Your task to perform on an android device: Show me recent news Image 0: 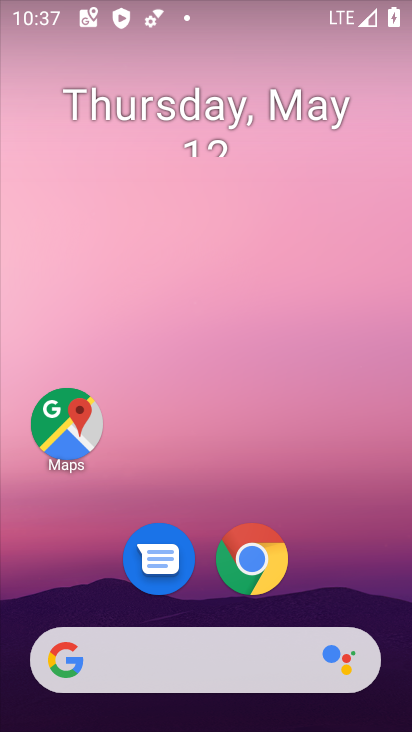
Step 0: drag from (215, 600) to (220, 250)
Your task to perform on an android device: Show me recent news Image 1: 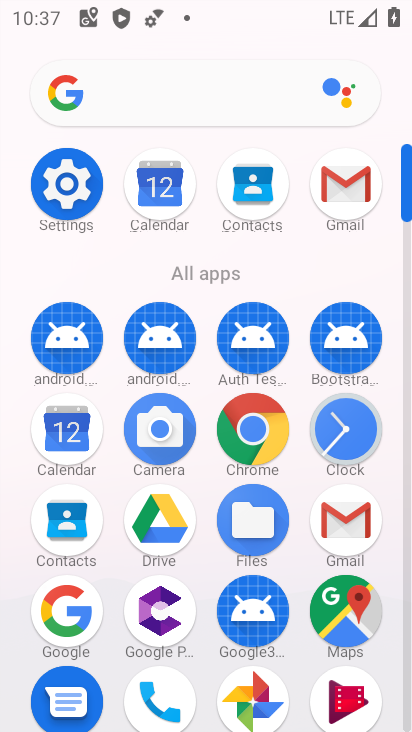
Step 1: click (72, 607)
Your task to perform on an android device: Show me recent news Image 2: 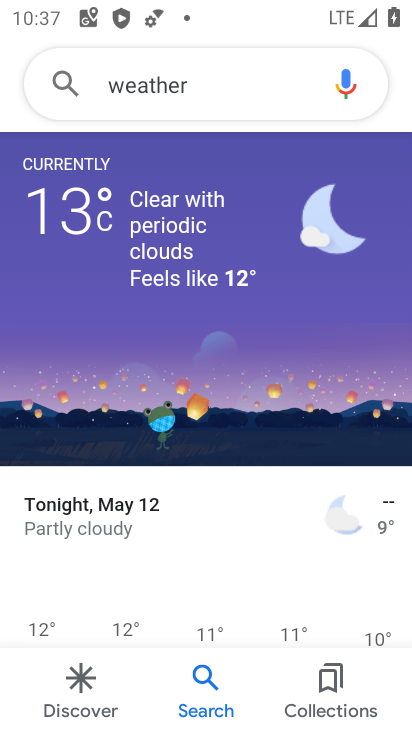
Step 2: click (199, 85)
Your task to perform on an android device: Show me recent news Image 3: 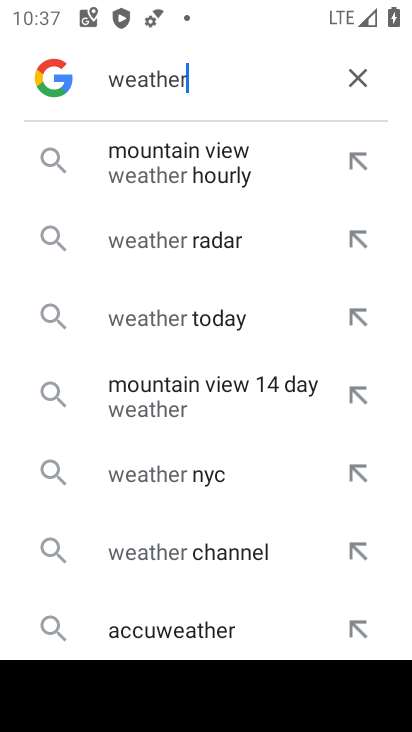
Step 3: click (354, 66)
Your task to perform on an android device: Show me recent news Image 4: 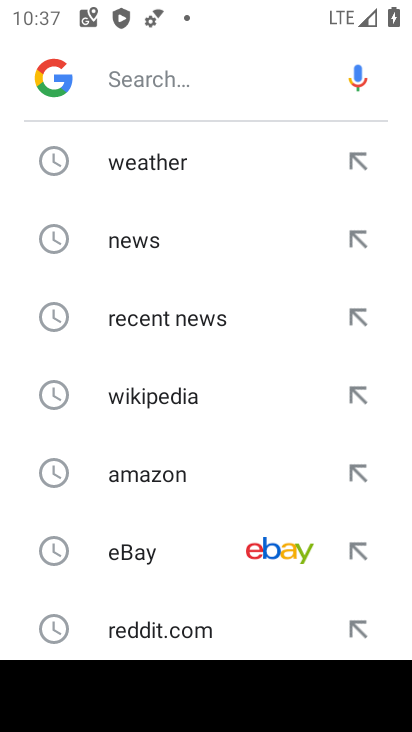
Step 4: click (171, 330)
Your task to perform on an android device: Show me recent news Image 5: 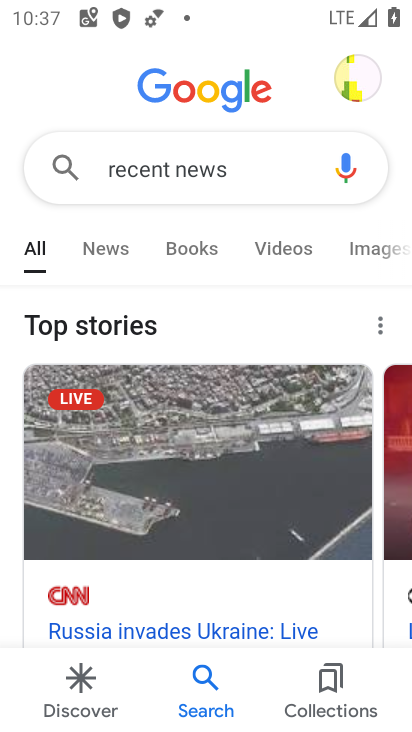
Step 5: click (91, 239)
Your task to perform on an android device: Show me recent news Image 6: 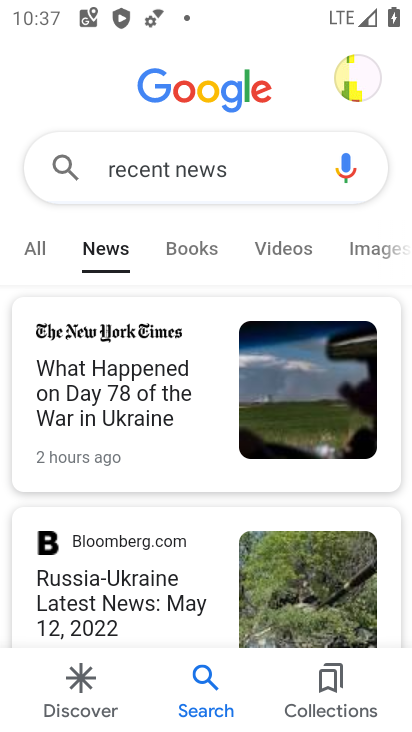
Step 6: task complete